Your task to perform on an android device: How do I get to the nearest Best Buy? Image 0: 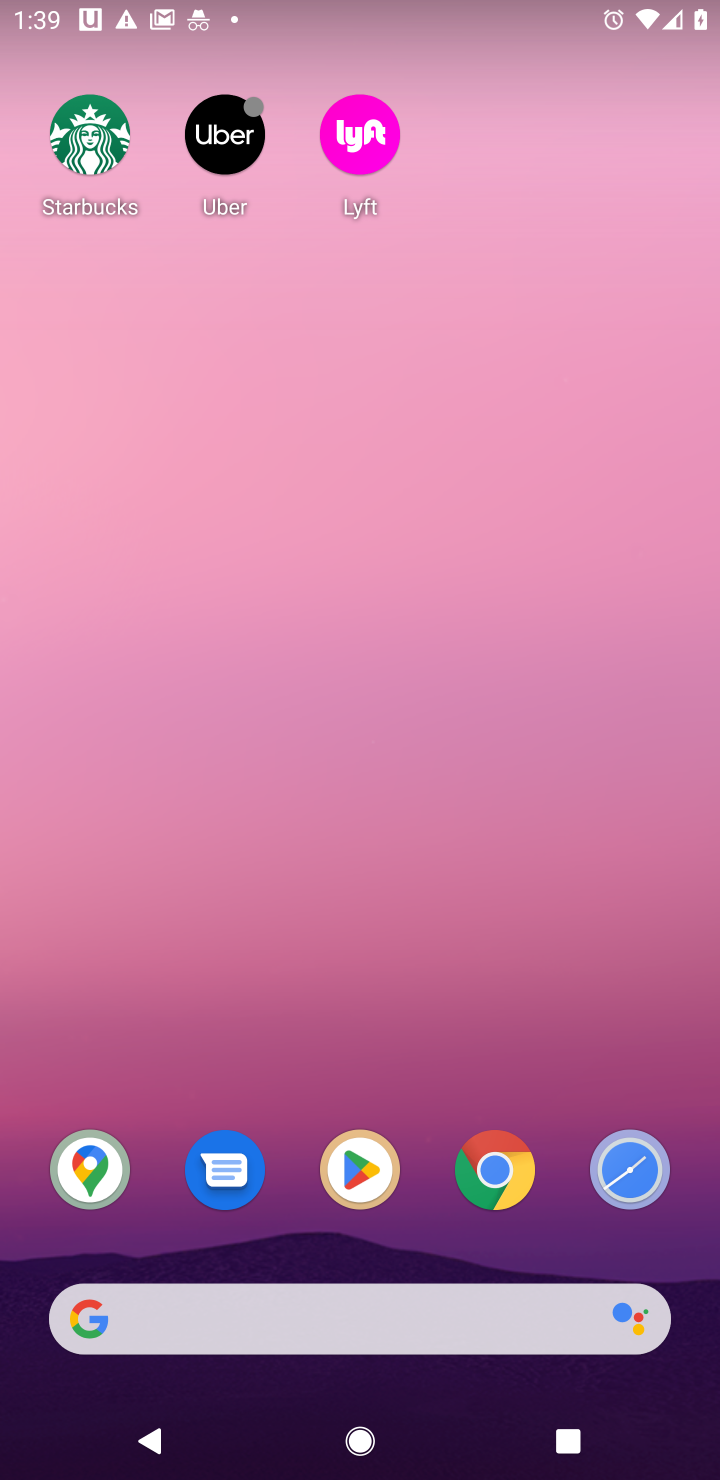
Step 0: click (507, 1178)
Your task to perform on an android device: How do I get to the nearest Best Buy? Image 1: 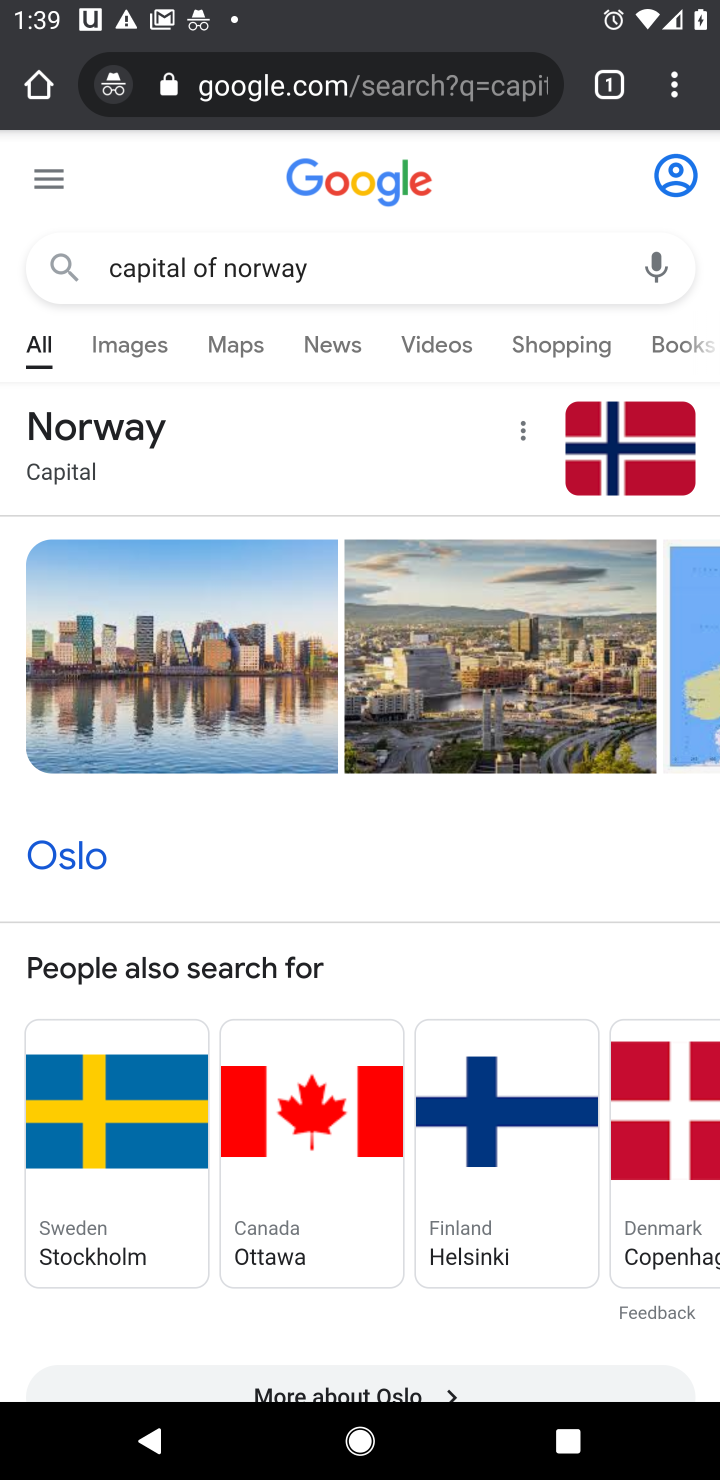
Step 1: click (369, 90)
Your task to perform on an android device: How do I get to the nearest Best Buy? Image 2: 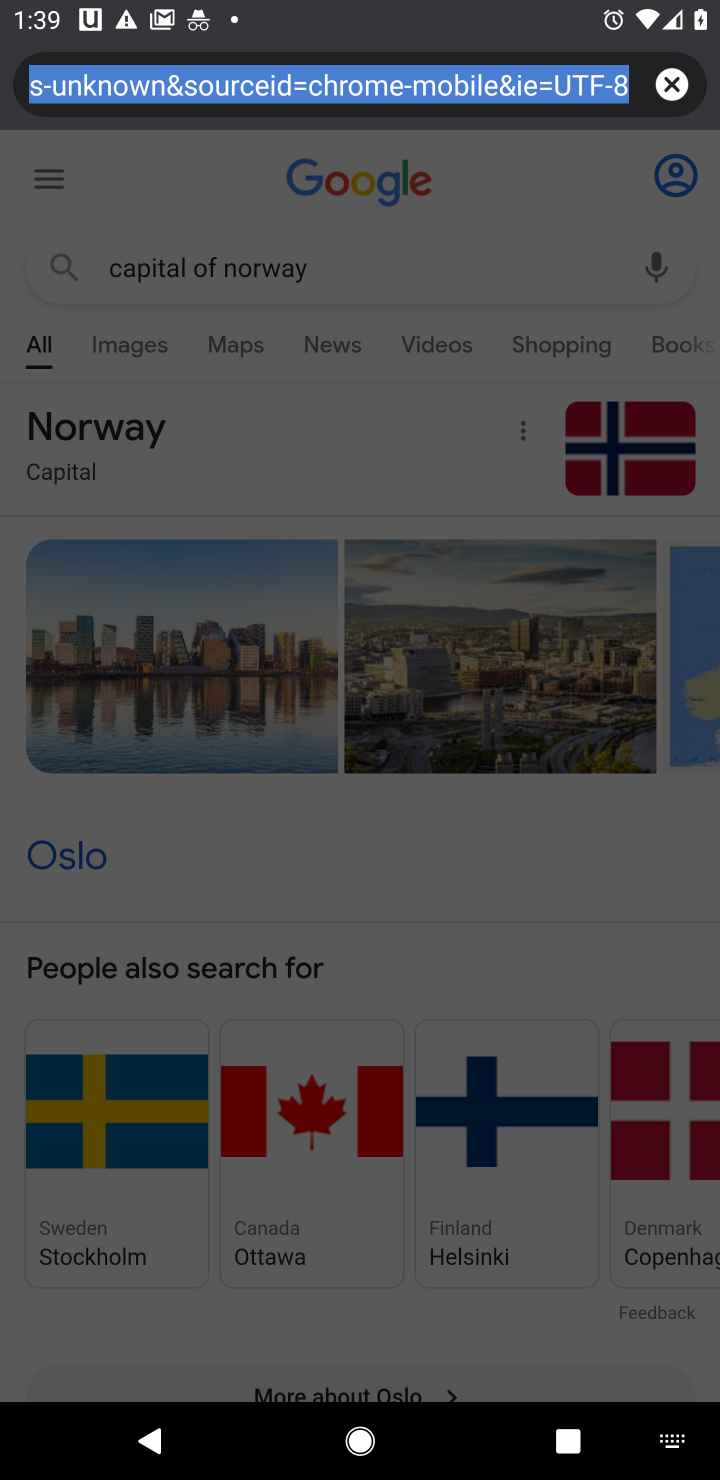
Step 2: click (672, 88)
Your task to perform on an android device: How do I get to the nearest Best Buy? Image 3: 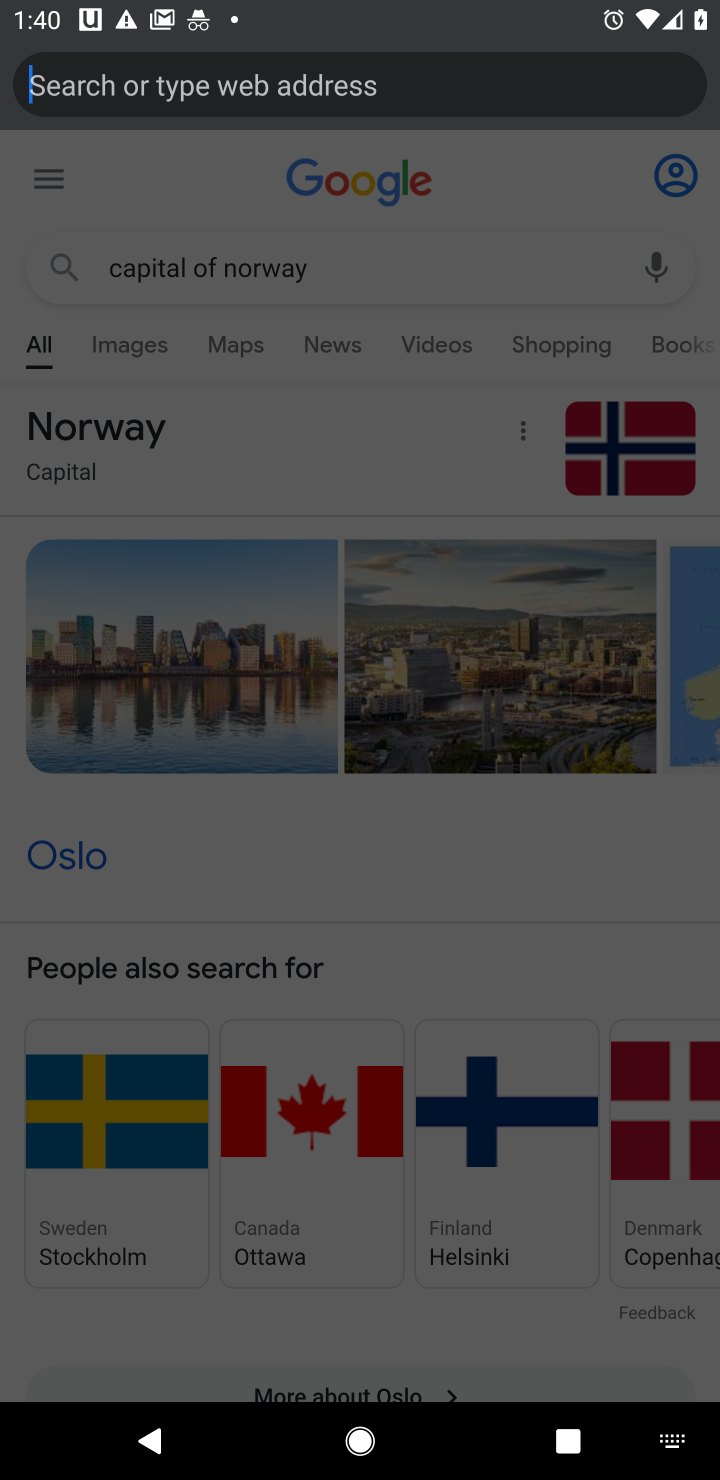
Step 3: type "how do i get to the nearest best buy"
Your task to perform on an android device: How do I get to the nearest Best Buy? Image 4: 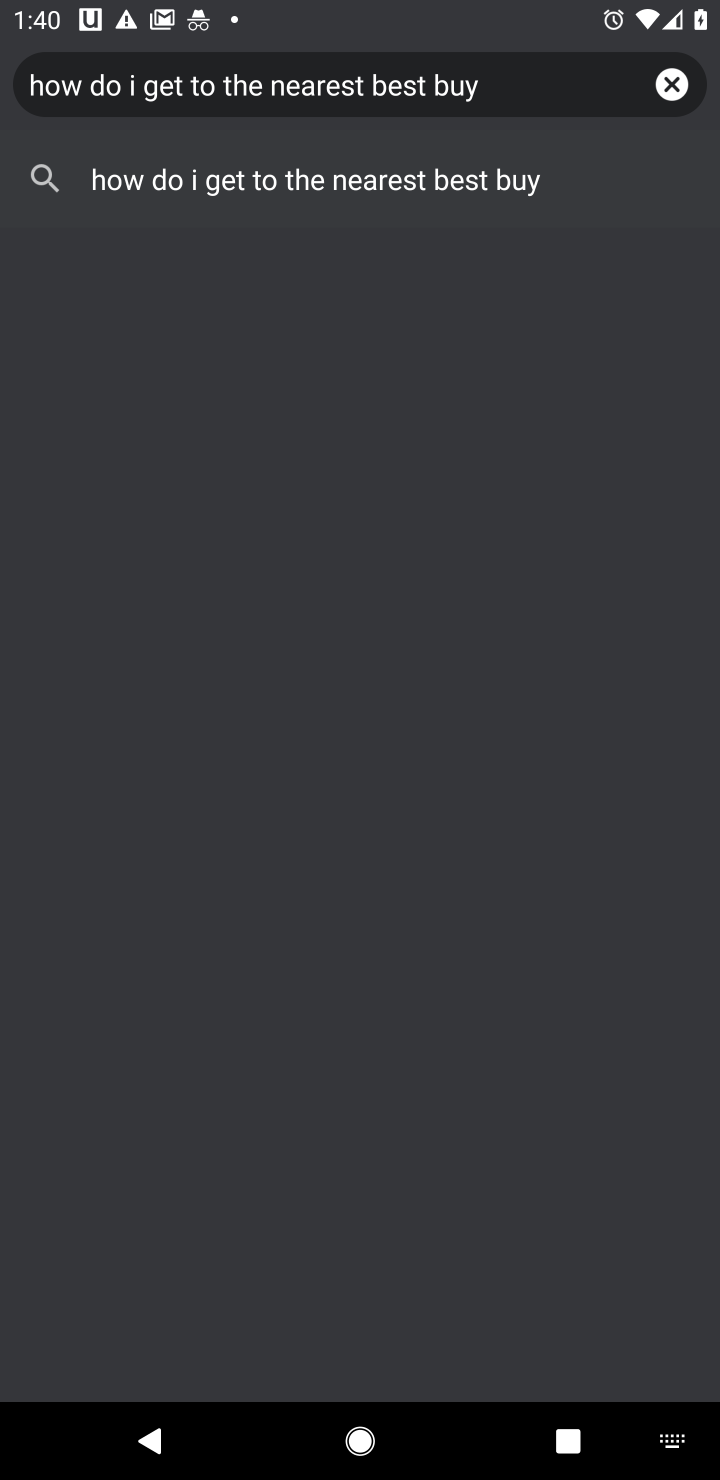
Step 4: type ""
Your task to perform on an android device: How do I get to the nearest Best Buy? Image 5: 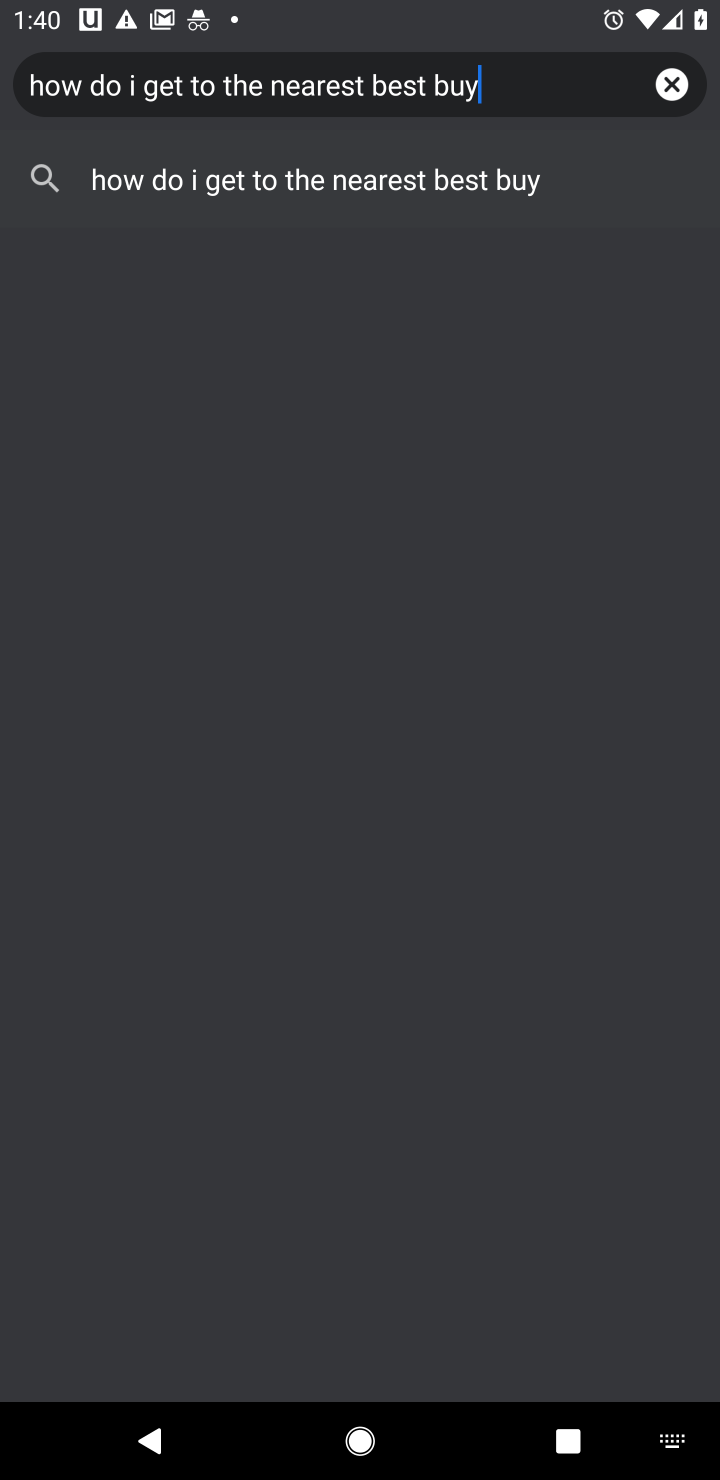
Step 5: click (287, 172)
Your task to perform on an android device: How do I get to the nearest Best Buy? Image 6: 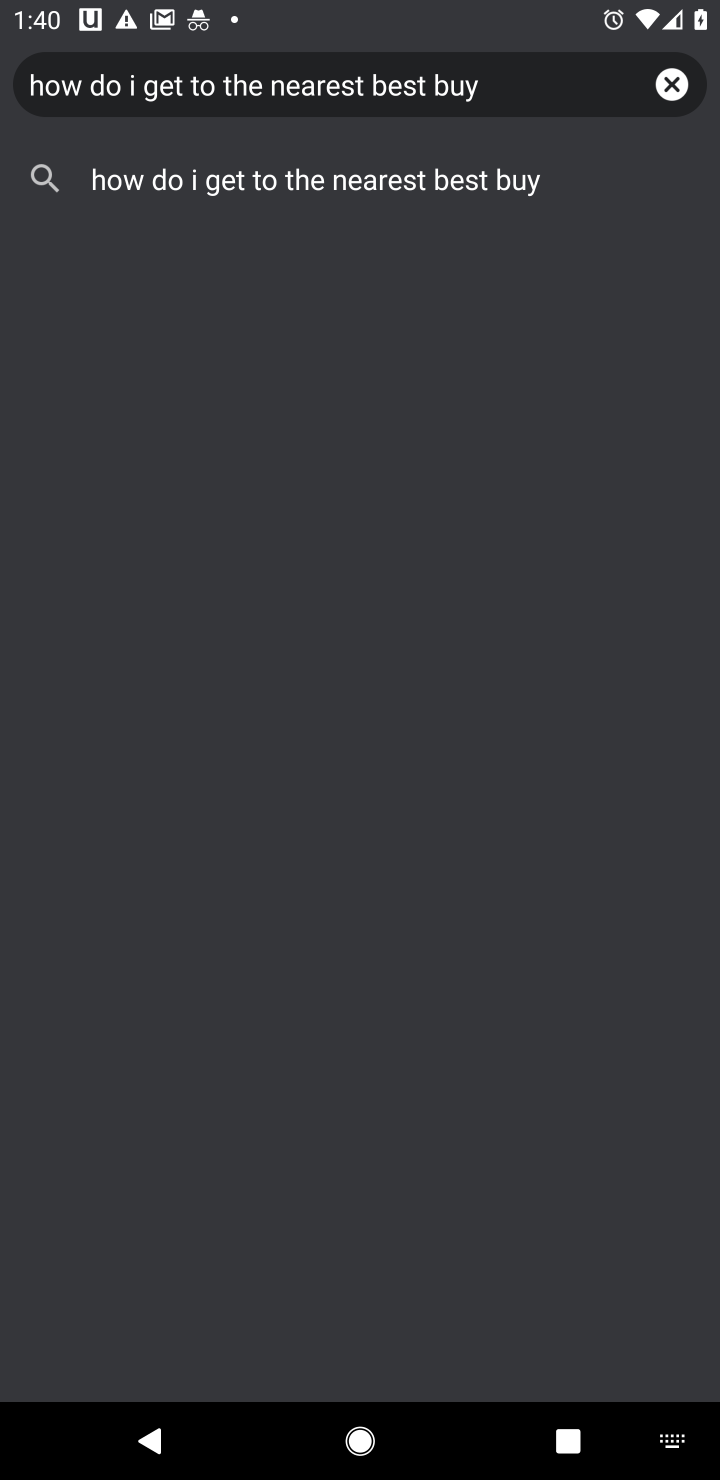
Step 6: click (287, 172)
Your task to perform on an android device: How do I get to the nearest Best Buy? Image 7: 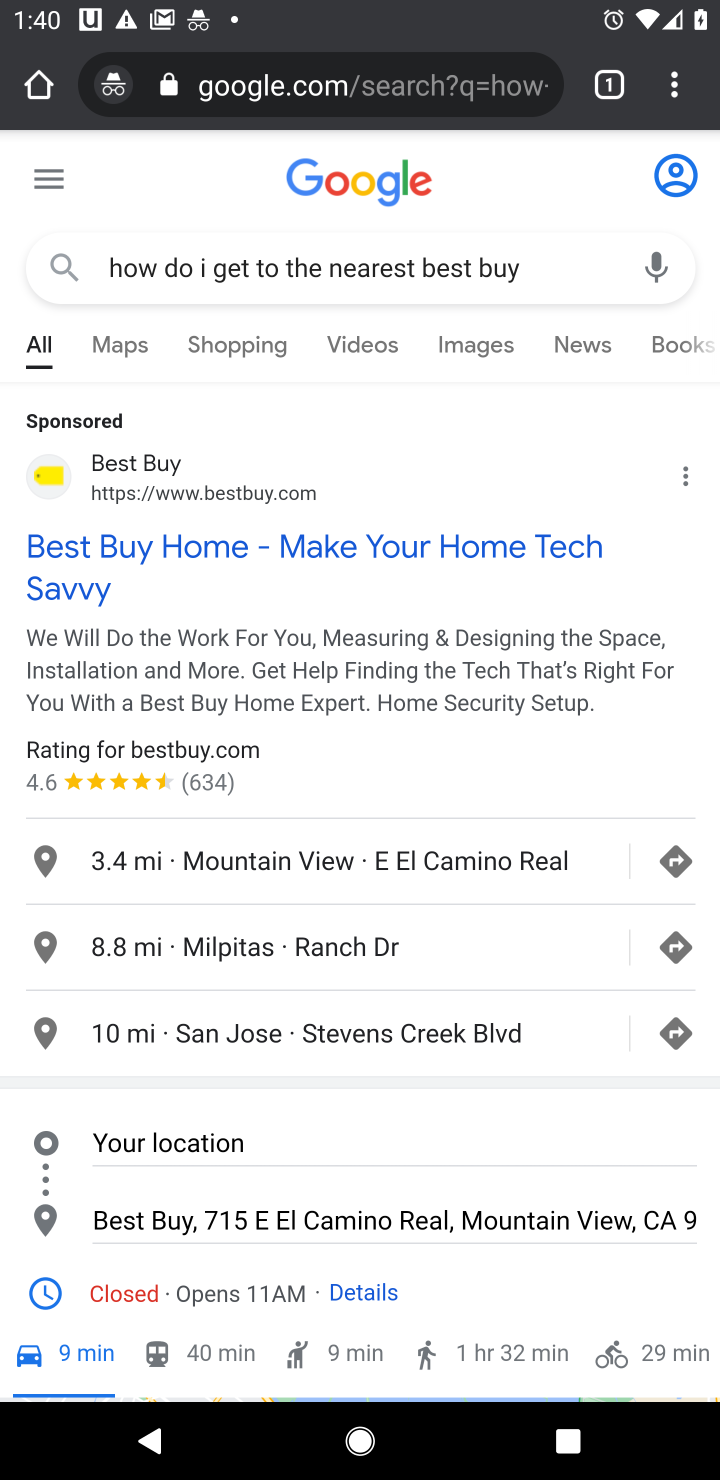
Step 7: task complete